Your task to perform on an android device: When is my next meeting? Image 0: 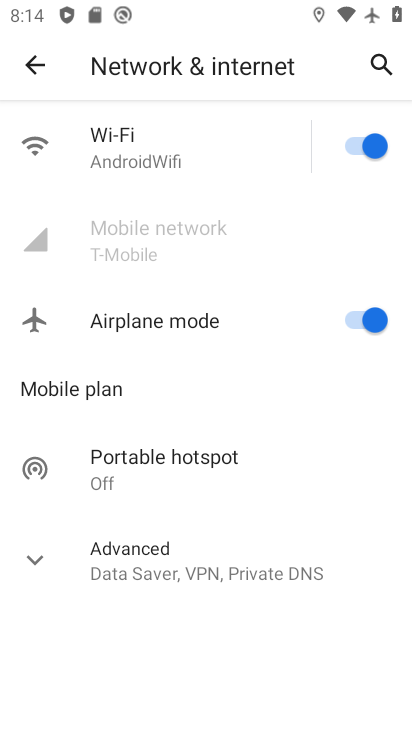
Step 0: press home button
Your task to perform on an android device: When is my next meeting? Image 1: 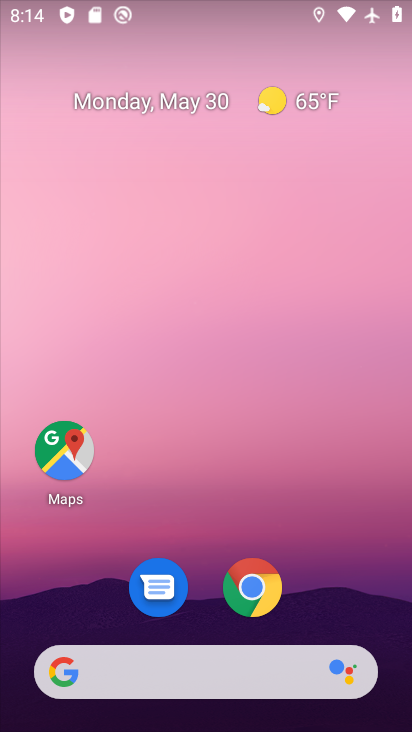
Step 1: drag from (125, 670) to (296, 57)
Your task to perform on an android device: When is my next meeting? Image 2: 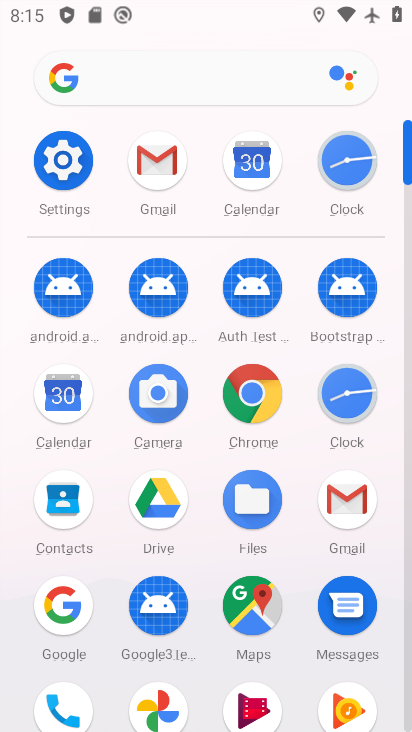
Step 2: click (254, 165)
Your task to perform on an android device: When is my next meeting? Image 3: 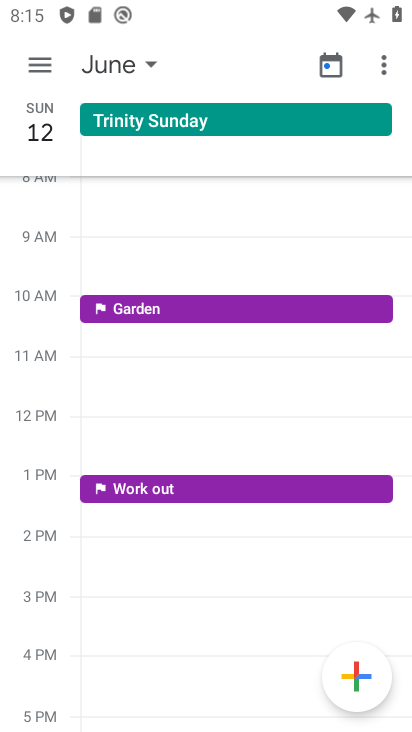
Step 3: click (119, 69)
Your task to perform on an android device: When is my next meeting? Image 4: 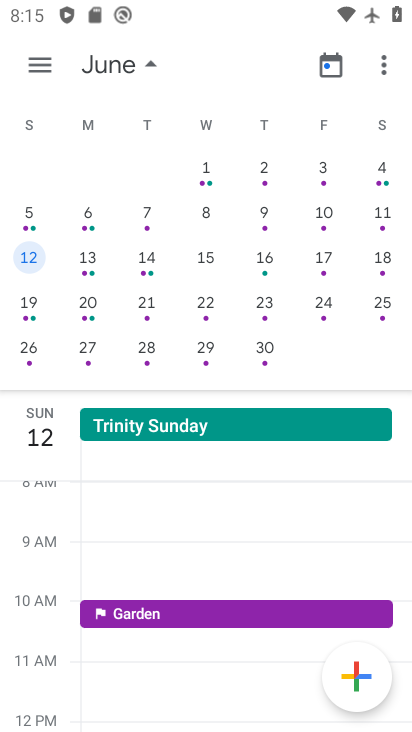
Step 4: drag from (81, 312) to (408, 443)
Your task to perform on an android device: When is my next meeting? Image 5: 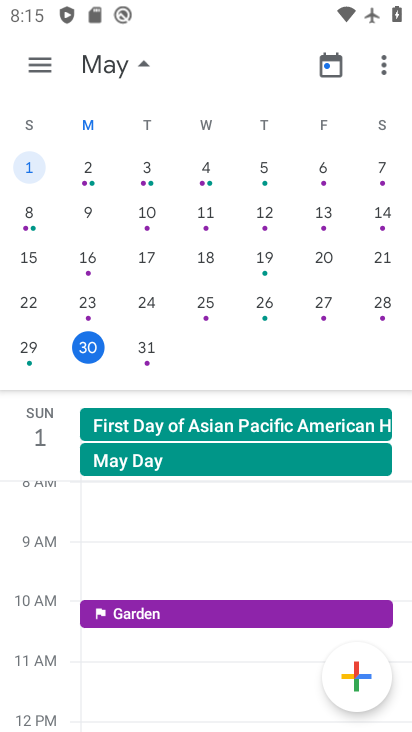
Step 5: click (95, 341)
Your task to perform on an android device: When is my next meeting? Image 6: 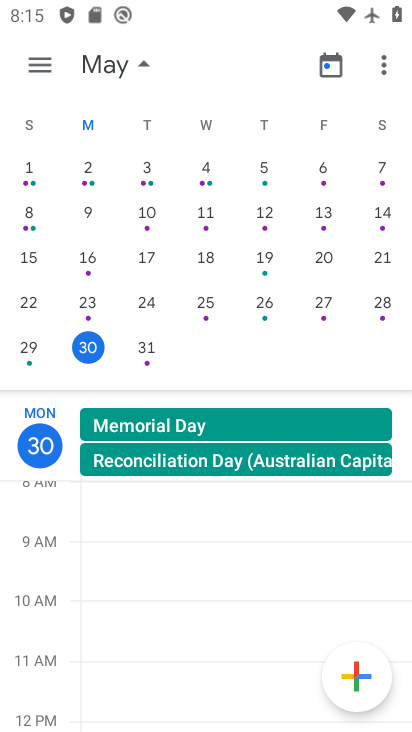
Step 6: click (42, 61)
Your task to perform on an android device: When is my next meeting? Image 7: 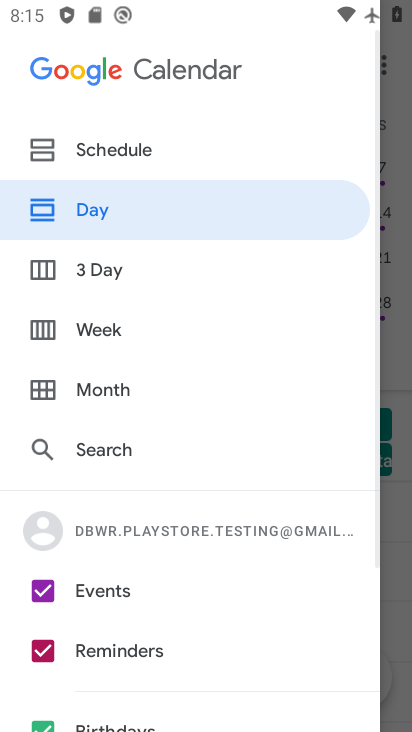
Step 7: click (100, 153)
Your task to perform on an android device: When is my next meeting? Image 8: 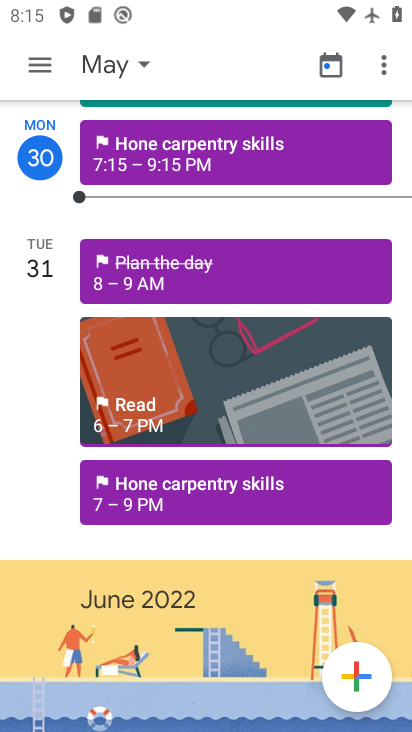
Step 8: task complete